Your task to perform on an android device: Go to battery settings Image 0: 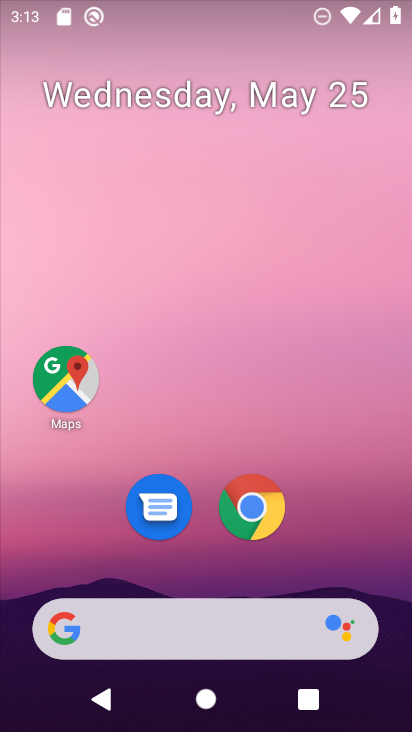
Step 0: drag from (237, 583) to (287, 177)
Your task to perform on an android device: Go to battery settings Image 1: 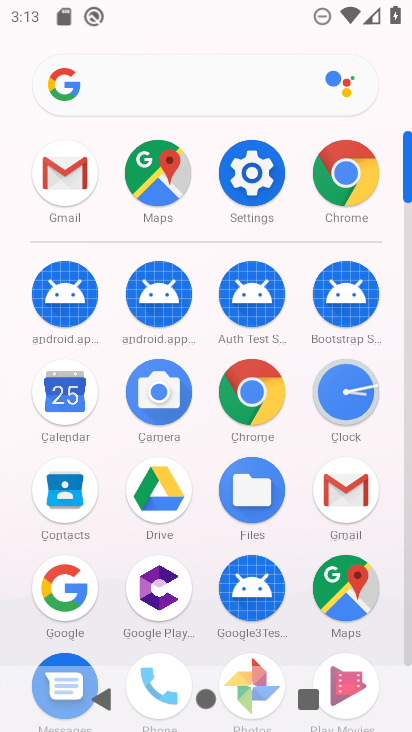
Step 1: click (258, 201)
Your task to perform on an android device: Go to battery settings Image 2: 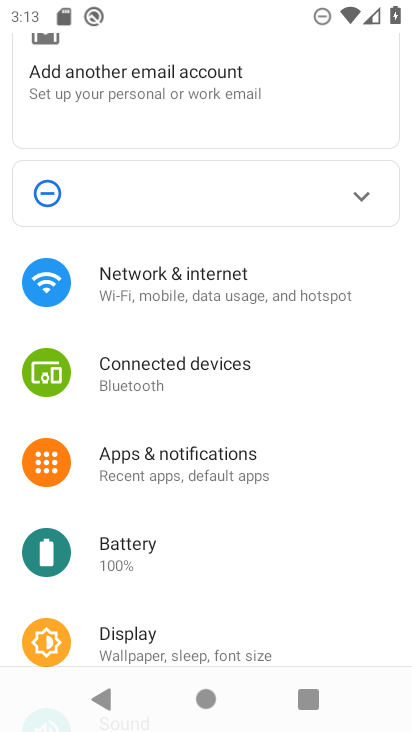
Step 2: click (160, 564)
Your task to perform on an android device: Go to battery settings Image 3: 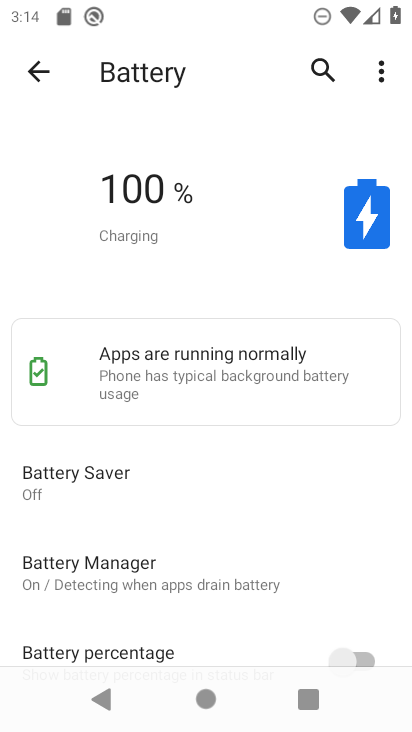
Step 3: task complete